Your task to perform on an android device: What's a good restaurant in San Jose? Image 0: 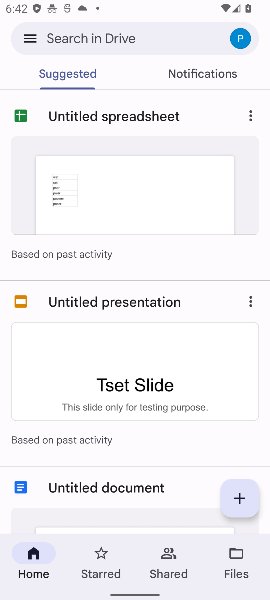
Step 0: press home button
Your task to perform on an android device: What's a good restaurant in San Jose? Image 1: 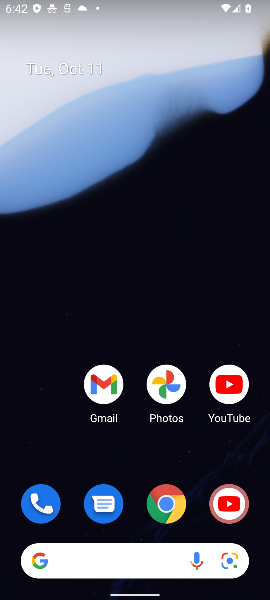
Step 1: click (116, 568)
Your task to perform on an android device: What's a good restaurant in San Jose? Image 2: 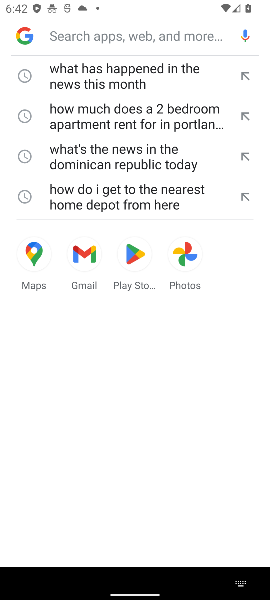
Step 2: click (78, 44)
Your task to perform on an android device: What's a good restaurant in San Jose? Image 3: 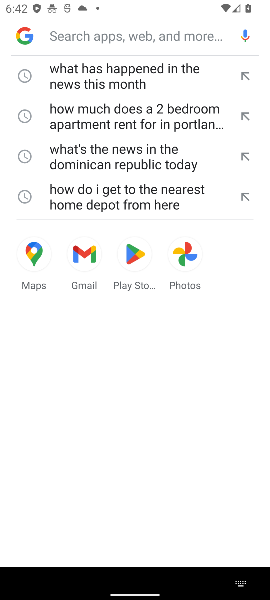
Step 3: type "What's a good restaurant in San Jose?"
Your task to perform on an android device: What's a good restaurant in San Jose? Image 4: 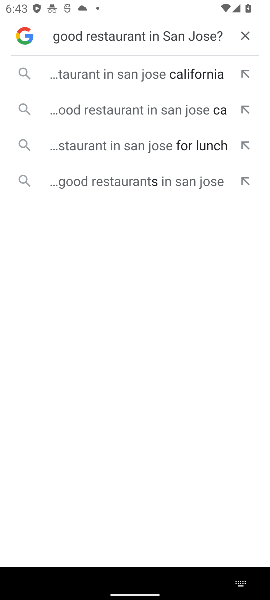
Step 4: click (161, 78)
Your task to perform on an android device: What's a good restaurant in San Jose? Image 5: 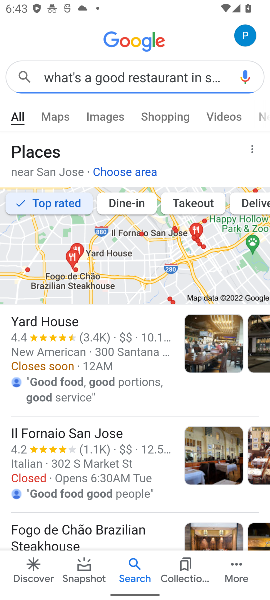
Step 5: task complete